Your task to perform on an android device: Open Reddit.com Image 0: 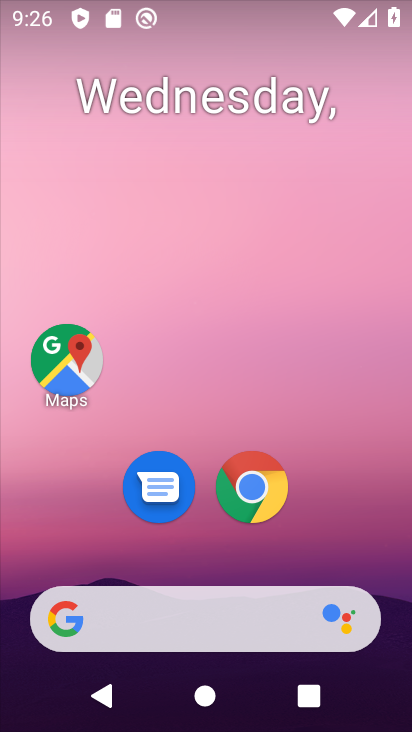
Step 0: click (269, 502)
Your task to perform on an android device: Open Reddit.com Image 1: 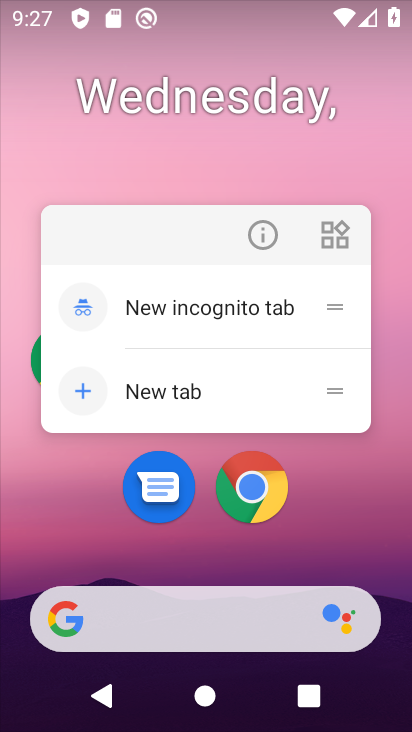
Step 1: click (261, 234)
Your task to perform on an android device: Open Reddit.com Image 2: 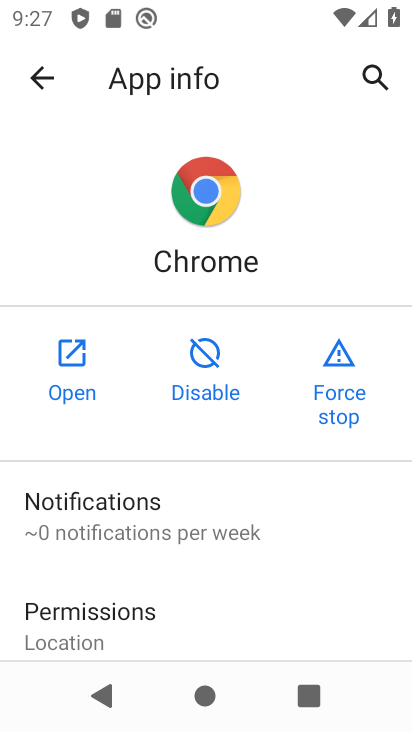
Step 2: click (73, 350)
Your task to perform on an android device: Open Reddit.com Image 3: 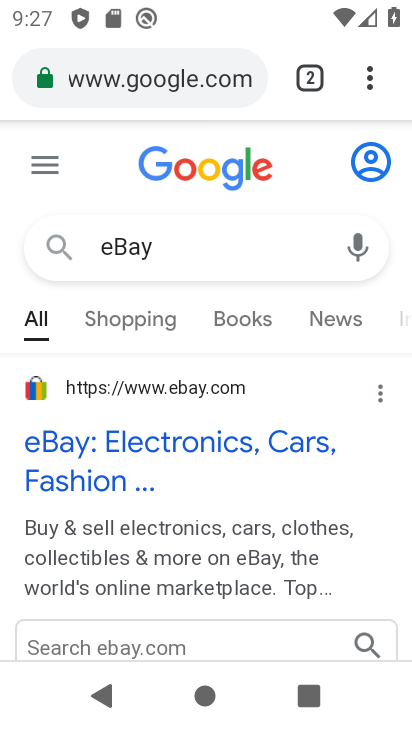
Step 3: click (101, 70)
Your task to perform on an android device: Open Reddit.com Image 4: 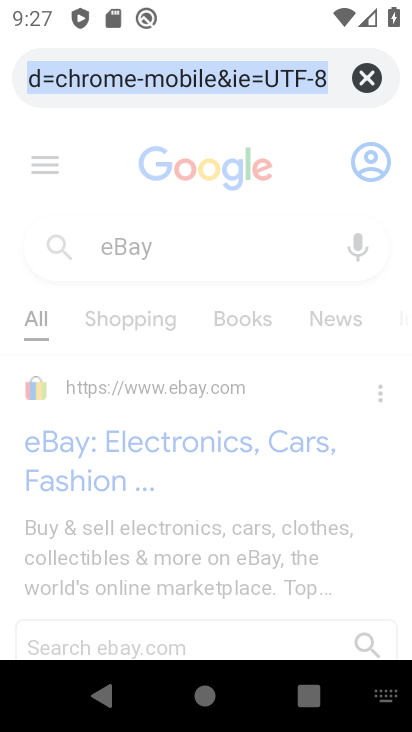
Step 4: type " Reddit.com"
Your task to perform on an android device: Open Reddit.com Image 5: 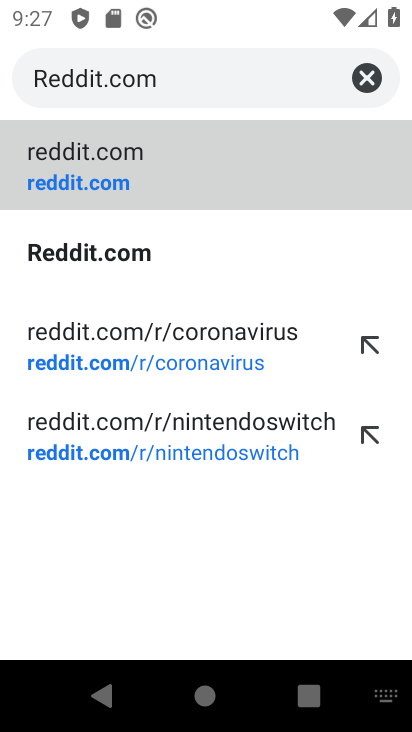
Step 5: click (182, 247)
Your task to perform on an android device: Open Reddit.com Image 6: 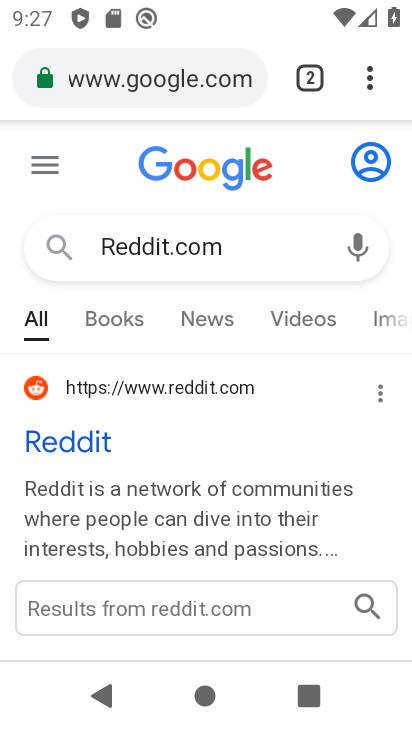
Step 6: task complete